Your task to perform on an android device: delete a single message in the gmail app Image 0: 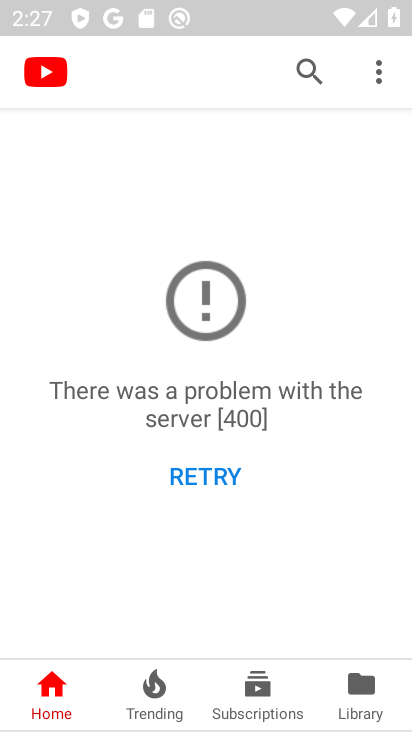
Step 0: press home button
Your task to perform on an android device: delete a single message in the gmail app Image 1: 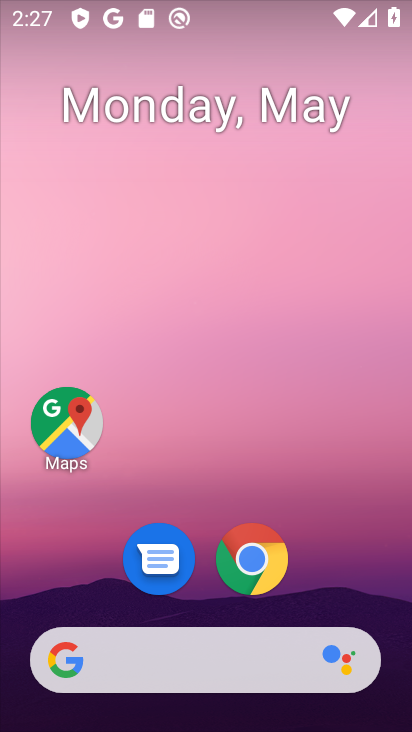
Step 1: drag from (314, 600) to (321, 56)
Your task to perform on an android device: delete a single message in the gmail app Image 2: 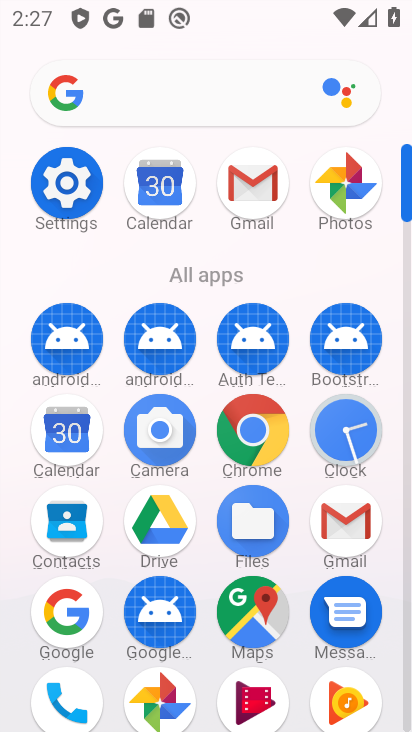
Step 2: click (252, 191)
Your task to perform on an android device: delete a single message in the gmail app Image 3: 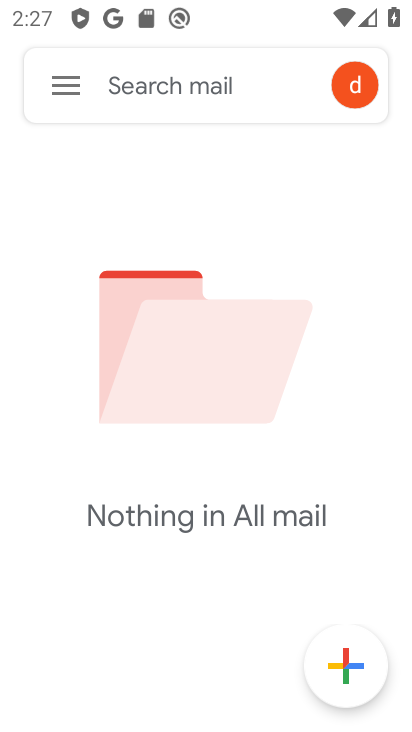
Step 3: click (66, 90)
Your task to perform on an android device: delete a single message in the gmail app Image 4: 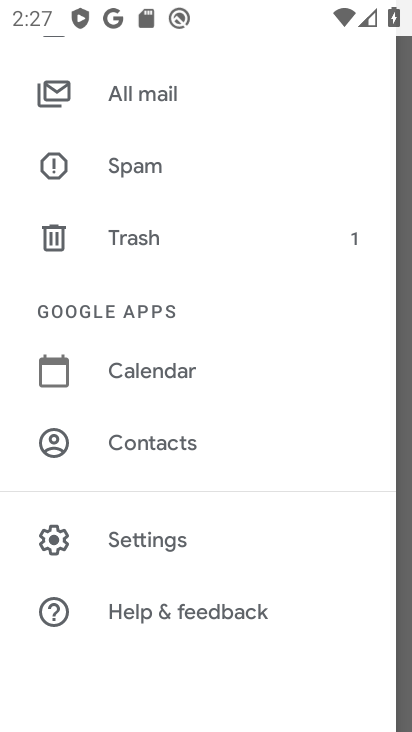
Step 4: click (197, 98)
Your task to perform on an android device: delete a single message in the gmail app Image 5: 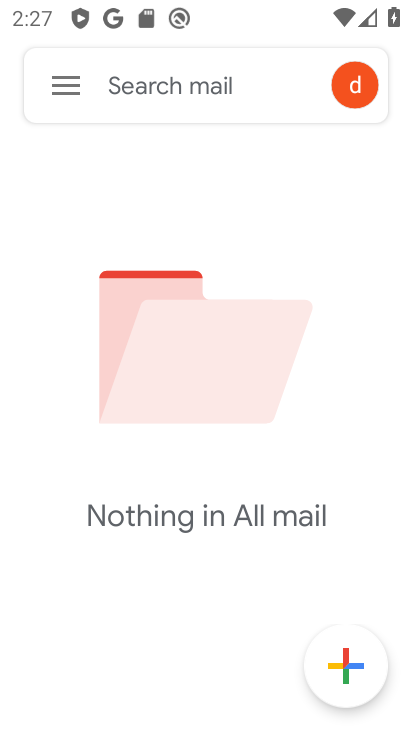
Step 5: task complete